Your task to perform on an android device: Search for sushi restaurants on Maps Image 0: 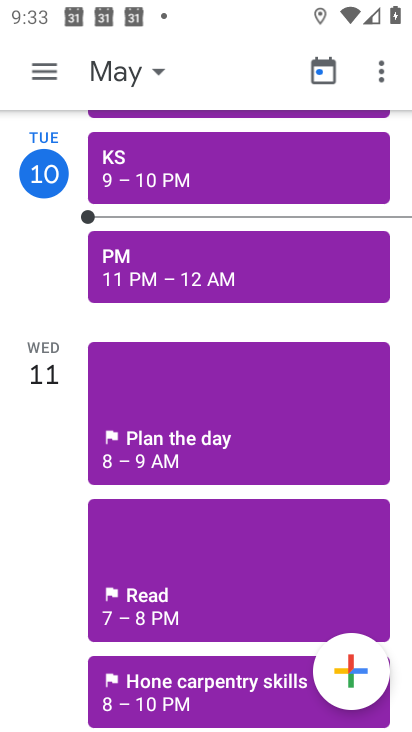
Step 0: drag from (326, 589) to (333, 273)
Your task to perform on an android device: Search for sushi restaurants on Maps Image 1: 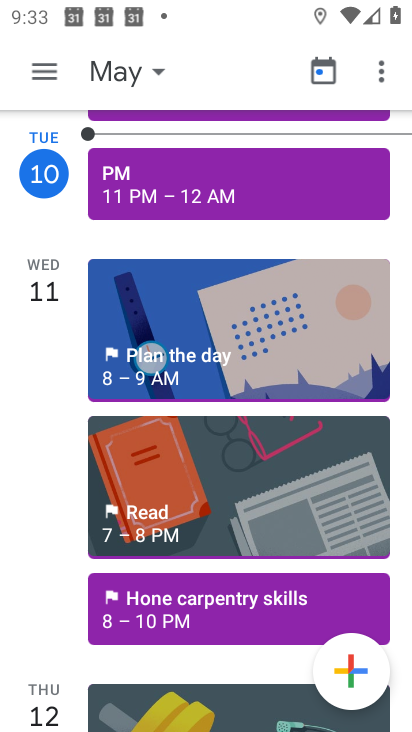
Step 1: press home button
Your task to perform on an android device: Search for sushi restaurants on Maps Image 2: 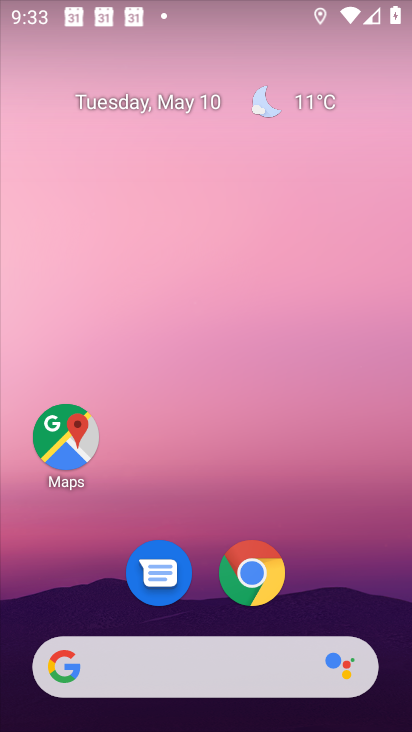
Step 2: click (55, 449)
Your task to perform on an android device: Search for sushi restaurants on Maps Image 3: 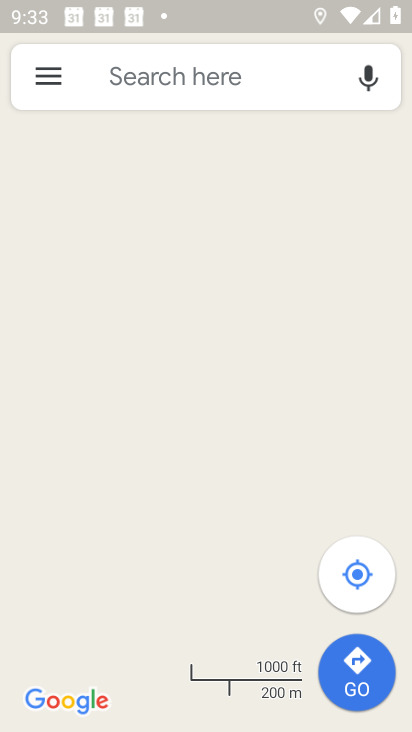
Step 3: click (224, 82)
Your task to perform on an android device: Search for sushi restaurants on Maps Image 4: 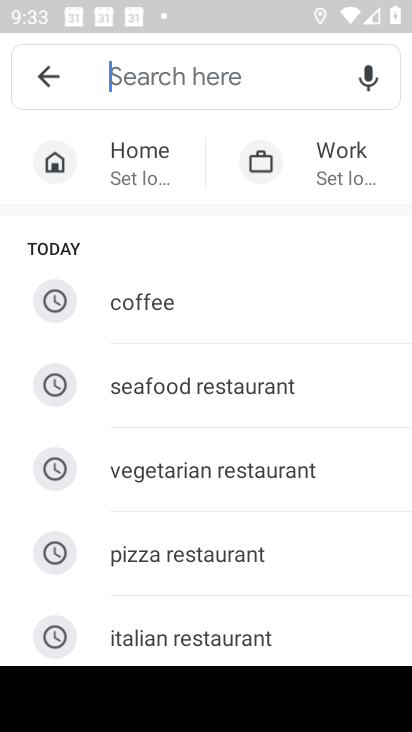
Step 4: type "sushi restaurant"
Your task to perform on an android device: Search for sushi restaurants on Maps Image 5: 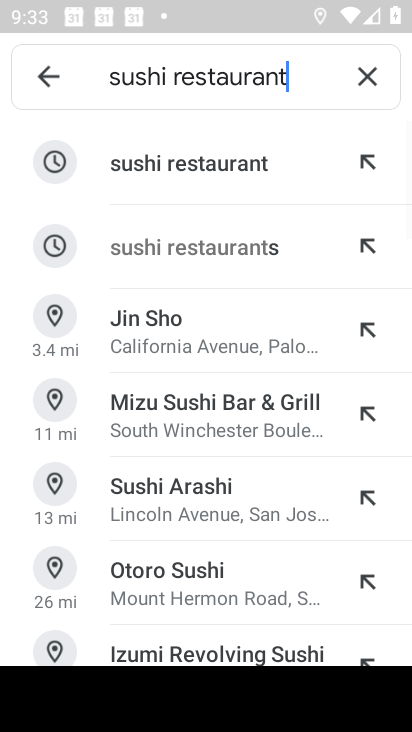
Step 5: click (213, 173)
Your task to perform on an android device: Search for sushi restaurants on Maps Image 6: 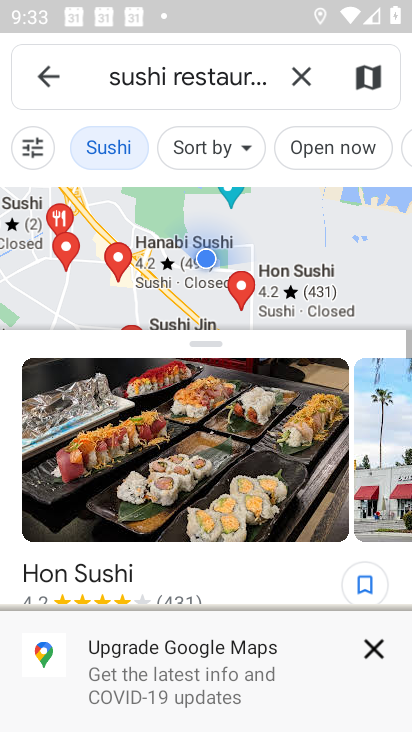
Step 6: task complete